Your task to perform on an android device: Open Reddit.com Image 0: 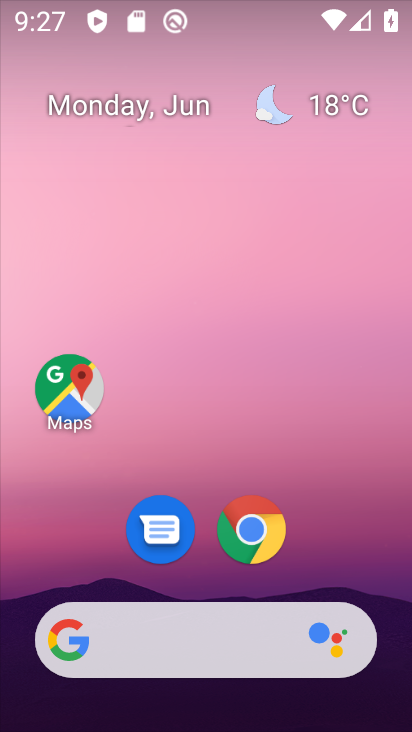
Step 0: click (235, 543)
Your task to perform on an android device: Open Reddit.com Image 1: 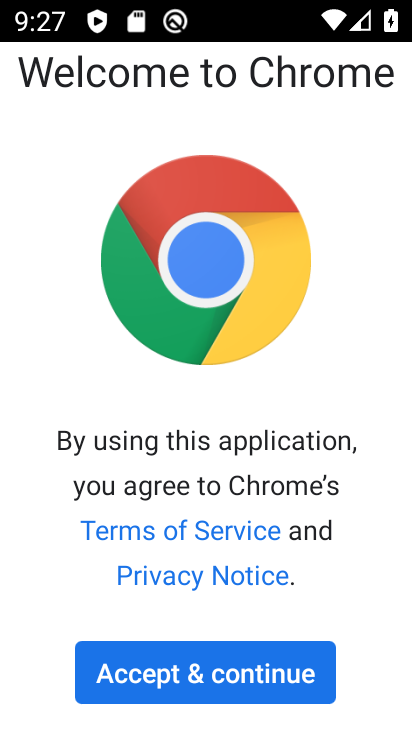
Step 1: click (200, 670)
Your task to perform on an android device: Open Reddit.com Image 2: 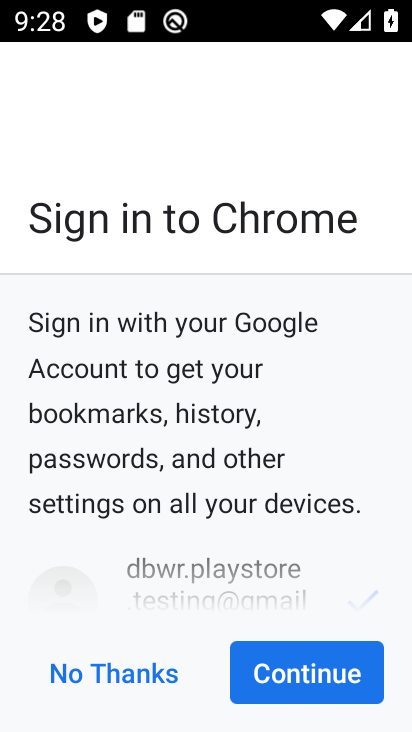
Step 2: click (305, 672)
Your task to perform on an android device: Open Reddit.com Image 3: 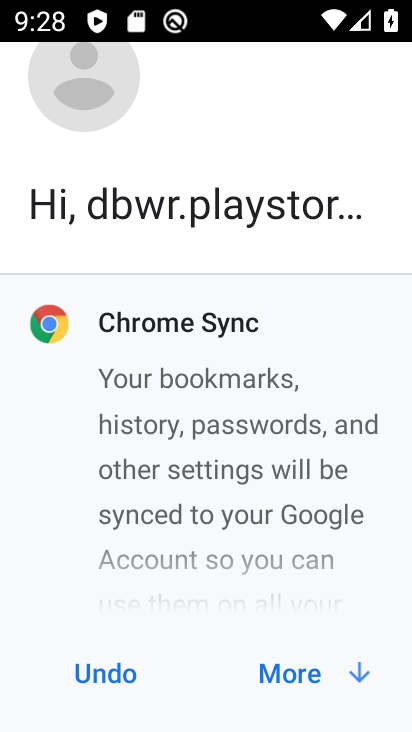
Step 3: click (321, 663)
Your task to perform on an android device: Open Reddit.com Image 4: 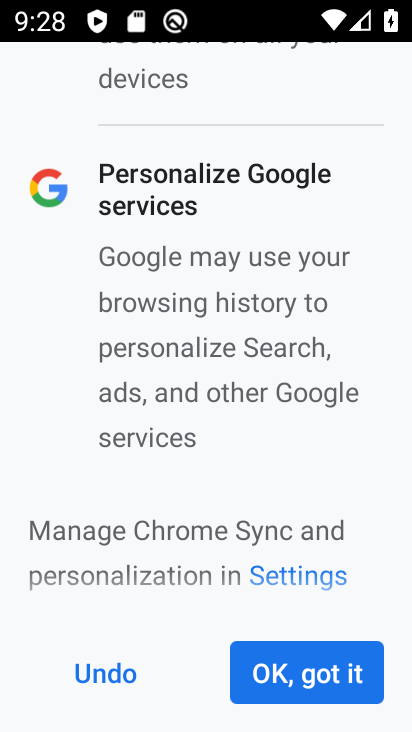
Step 4: click (309, 669)
Your task to perform on an android device: Open Reddit.com Image 5: 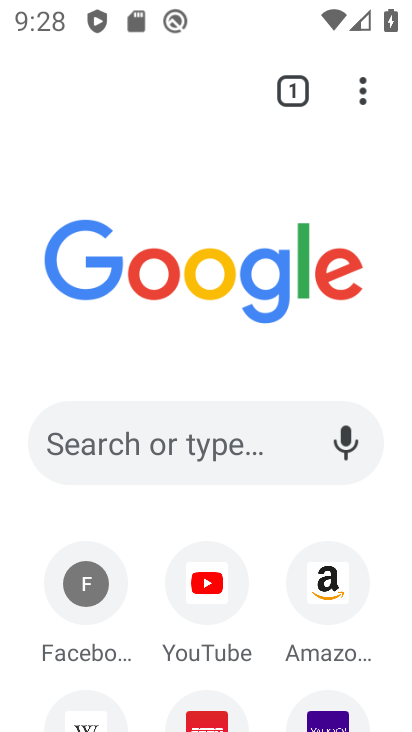
Step 5: click (209, 471)
Your task to perform on an android device: Open Reddit.com Image 6: 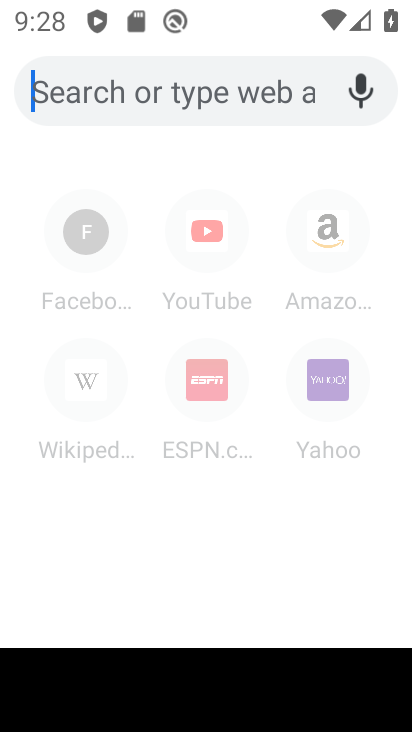
Step 6: type "reddit.com"
Your task to perform on an android device: Open Reddit.com Image 7: 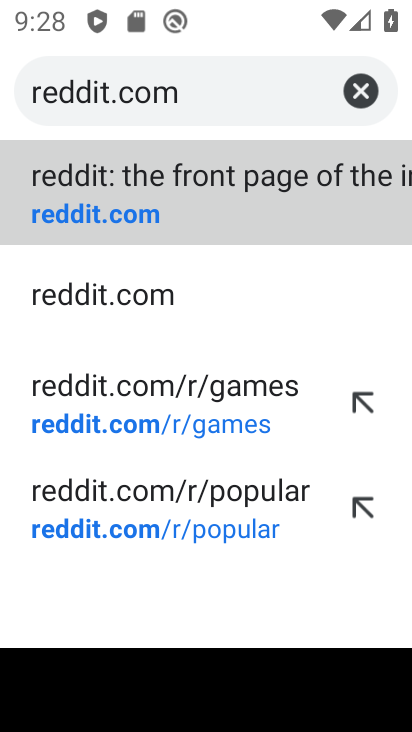
Step 7: click (151, 193)
Your task to perform on an android device: Open Reddit.com Image 8: 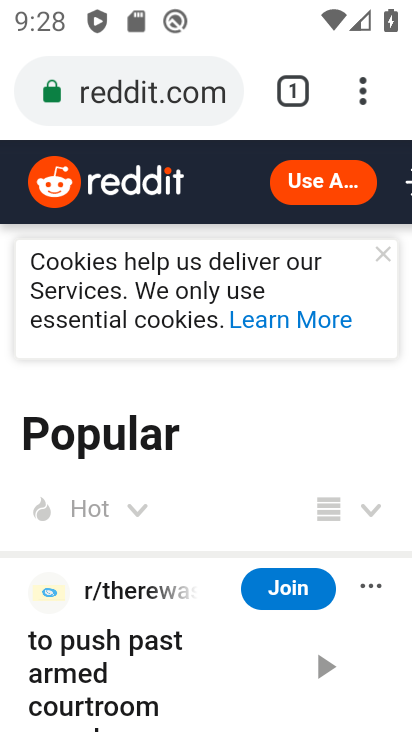
Step 8: task complete